Your task to perform on an android device: Show me popular videos on Youtube Image 0: 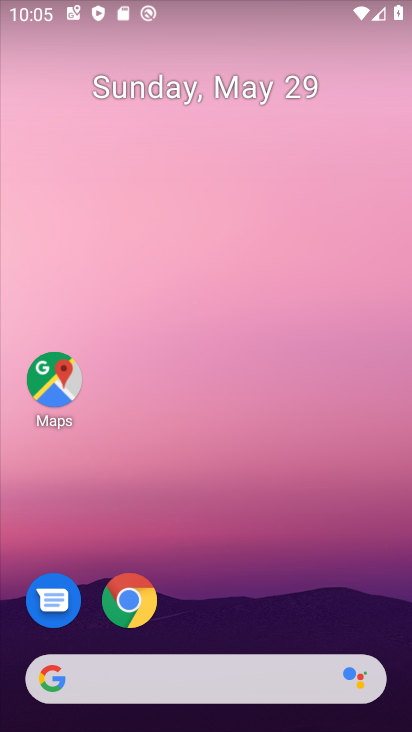
Step 0: drag from (222, 729) to (163, 117)
Your task to perform on an android device: Show me popular videos on Youtube Image 1: 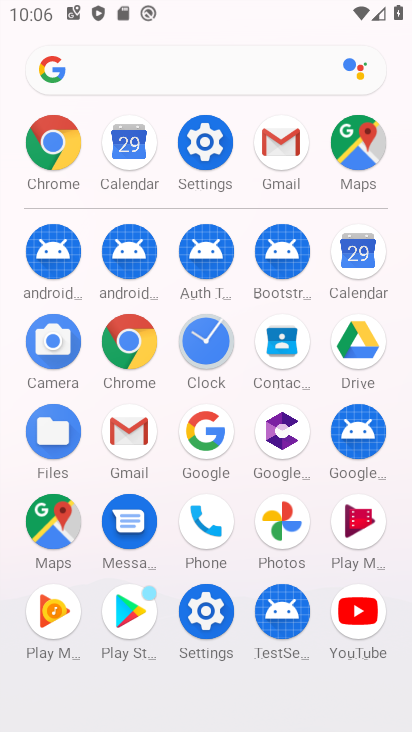
Step 1: click (363, 620)
Your task to perform on an android device: Show me popular videos on Youtube Image 2: 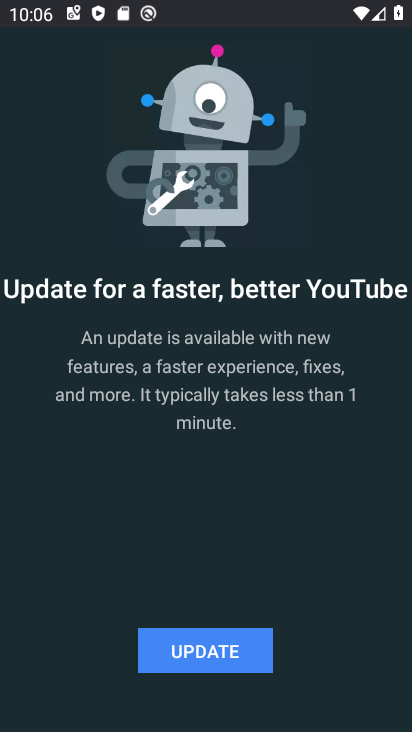
Step 2: task complete